Your task to perform on an android device: star an email in the gmail app Image 0: 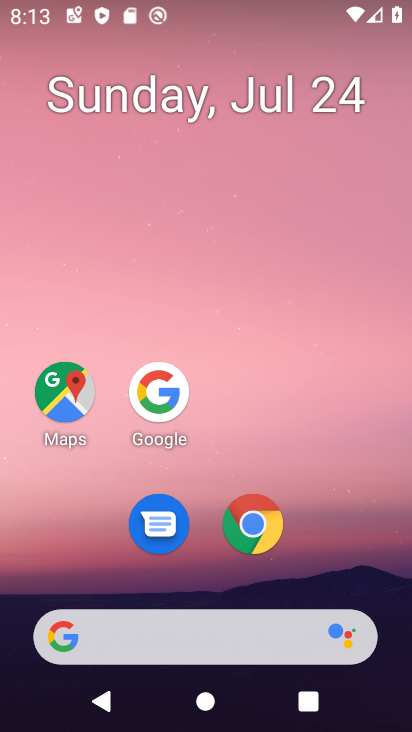
Step 0: press home button
Your task to perform on an android device: star an email in the gmail app Image 1: 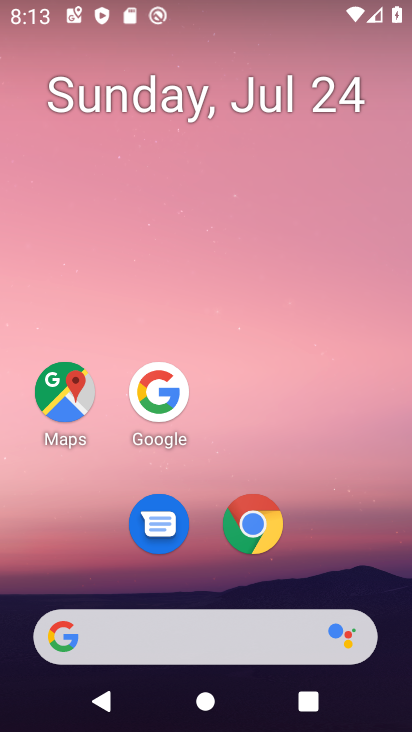
Step 1: drag from (153, 633) to (312, 1)
Your task to perform on an android device: star an email in the gmail app Image 2: 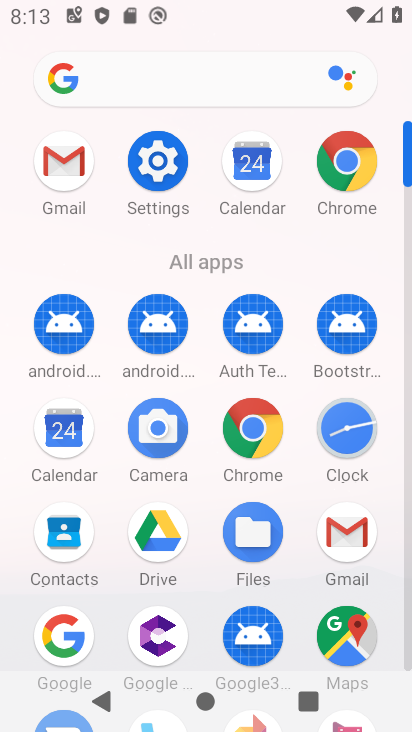
Step 2: click (59, 173)
Your task to perform on an android device: star an email in the gmail app Image 3: 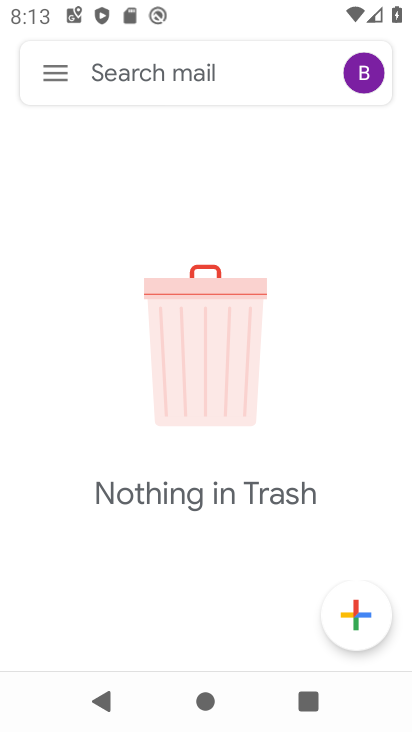
Step 3: click (58, 62)
Your task to perform on an android device: star an email in the gmail app Image 4: 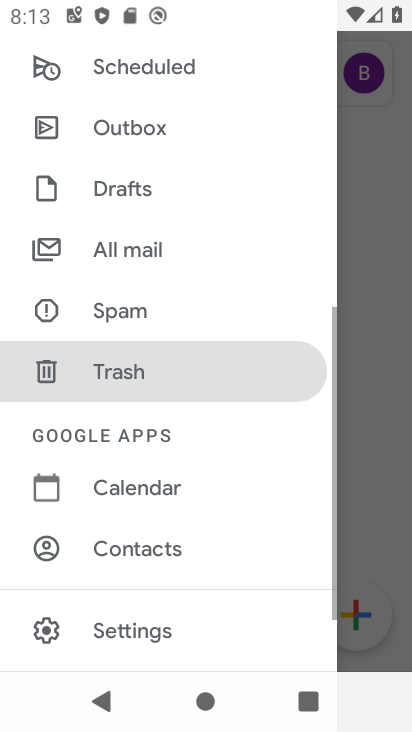
Step 4: drag from (219, 114) to (287, 552)
Your task to perform on an android device: star an email in the gmail app Image 5: 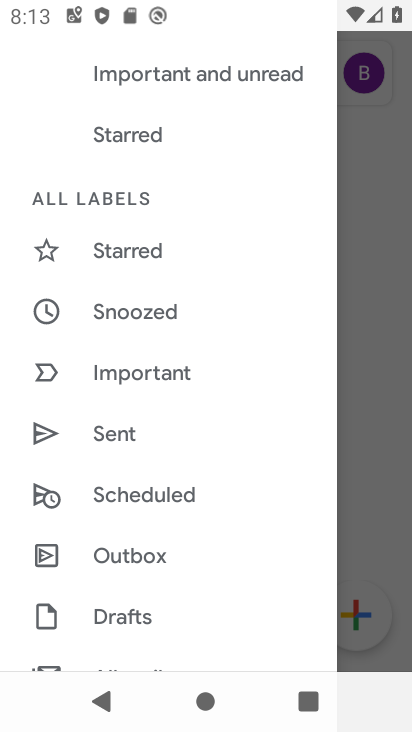
Step 5: drag from (200, 191) to (237, 480)
Your task to perform on an android device: star an email in the gmail app Image 6: 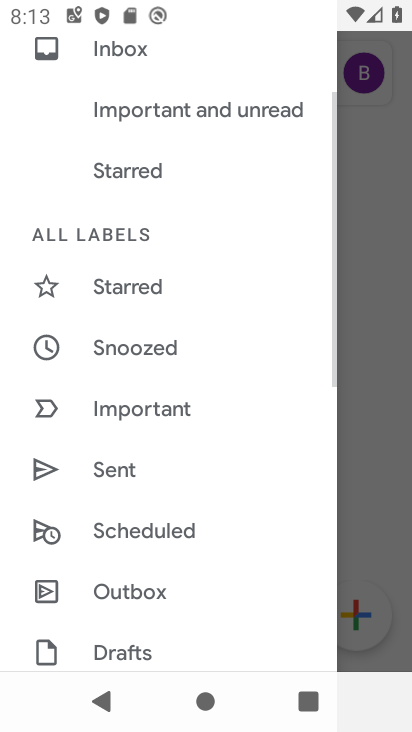
Step 6: click (106, 138)
Your task to perform on an android device: star an email in the gmail app Image 7: 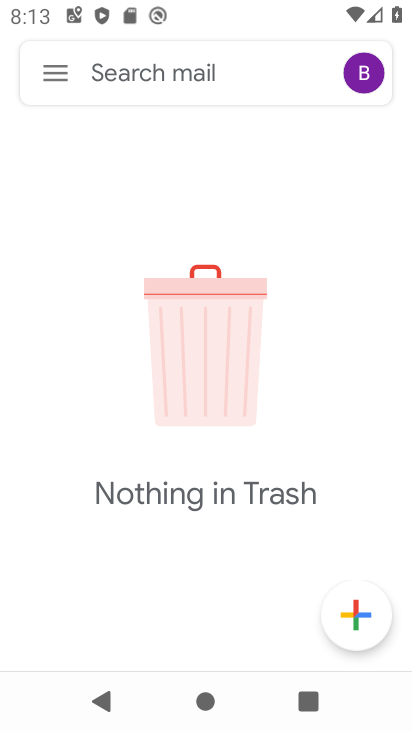
Step 7: click (101, 56)
Your task to perform on an android device: star an email in the gmail app Image 8: 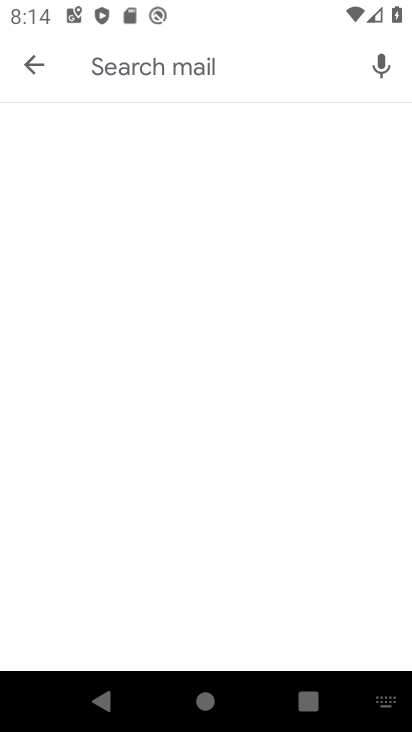
Step 8: click (38, 70)
Your task to perform on an android device: star an email in the gmail app Image 9: 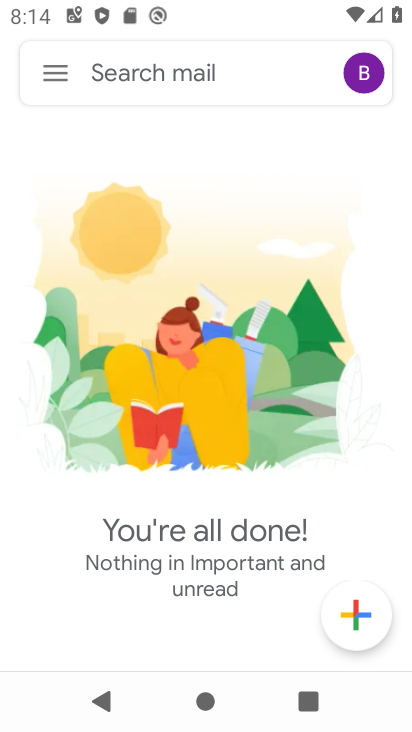
Step 9: click (50, 75)
Your task to perform on an android device: star an email in the gmail app Image 10: 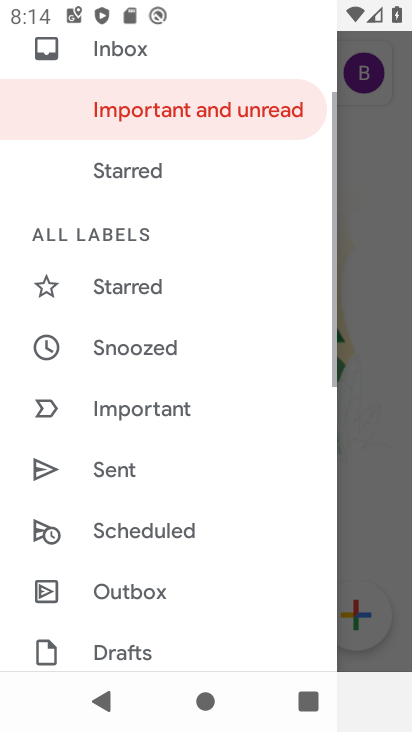
Step 10: drag from (235, 209) to (213, 542)
Your task to perform on an android device: star an email in the gmail app Image 11: 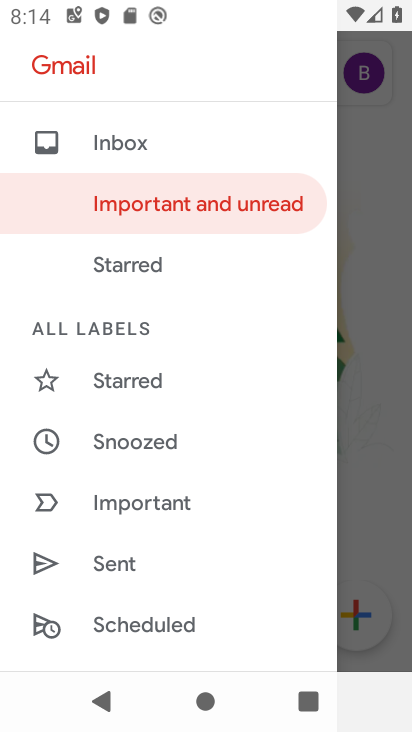
Step 11: click (138, 145)
Your task to perform on an android device: star an email in the gmail app Image 12: 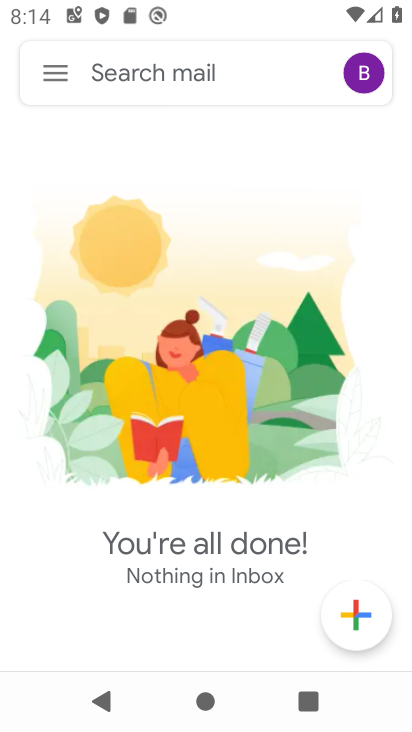
Step 12: task complete